Your task to perform on an android device: change your default location settings in chrome Image 0: 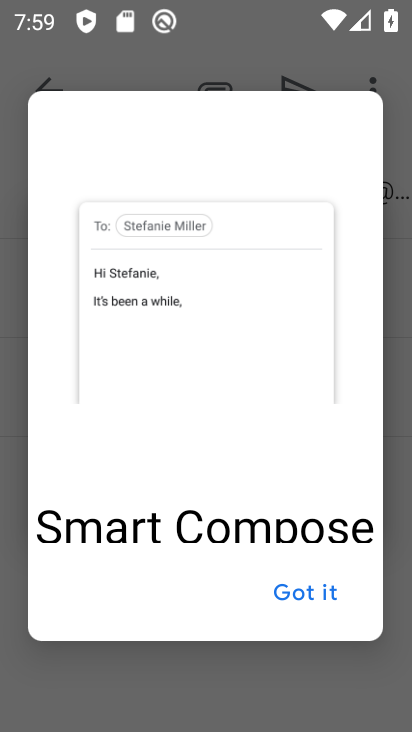
Step 0: press home button
Your task to perform on an android device: change your default location settings in chrome Image 1: 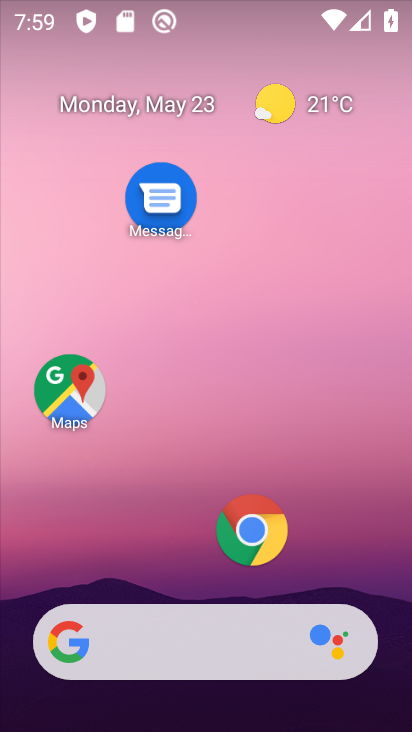
Step 1: click (250, 522)
Your task to perform on an android device: change your default location settings in chrome Image 2: 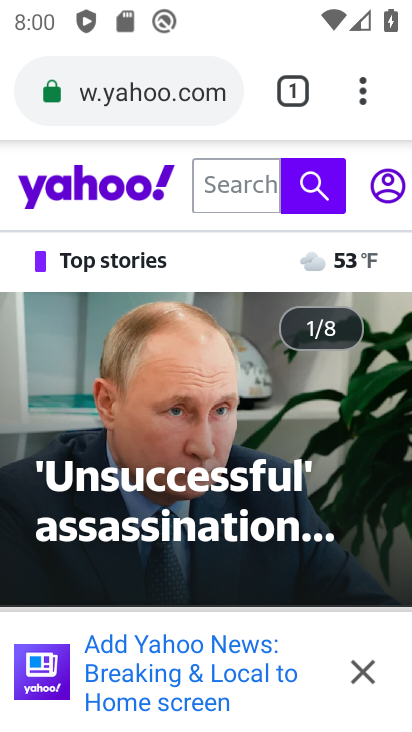
Step 2: click (368, 83)
Your task to perform on an android device: change your default location settings in chrome Image 3: 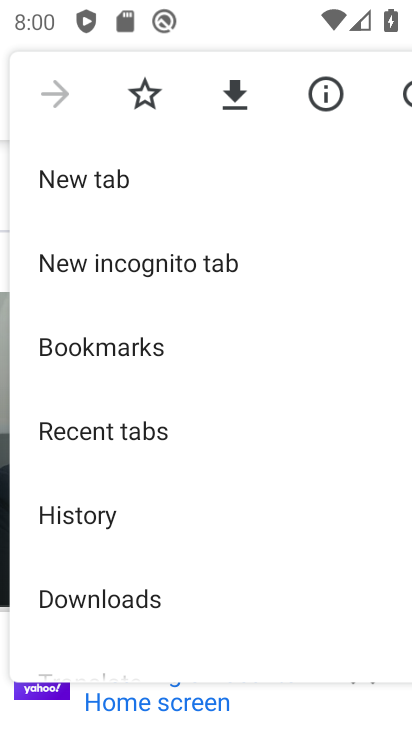
Step 3: drag from (157, 554) to (203, 255)
Your task to perform on an android device: change your default location settings in chrome Image 4: 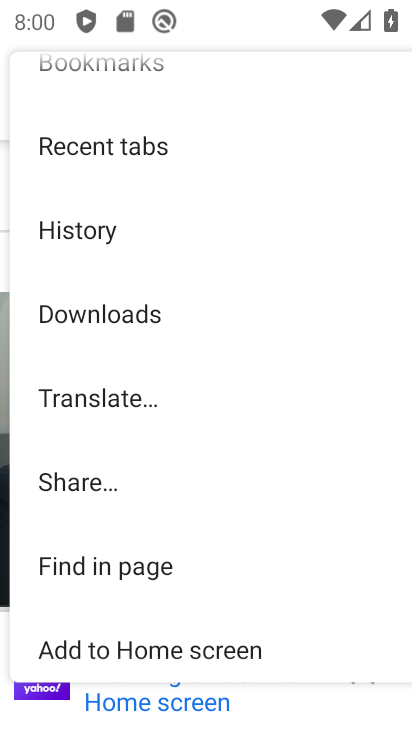
Step 4: drag from (134, 587) to (229, 214)
Your task to perform on an android device: change your default location settings in chrome Image 5: 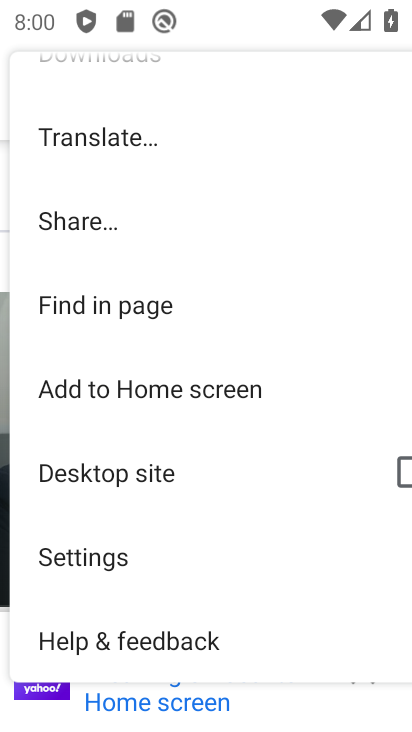
Step 5: drag from (177, 619) to (298, 155)
Your task to perform on an android device: change your default location settings in chrome Image 6: 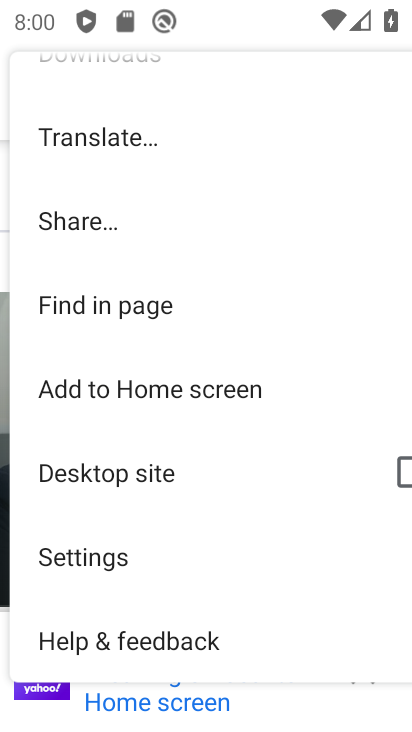
Step 6: click (72, 563)
Your task to perform on an android device: change your default location settings in chrome Image 7: 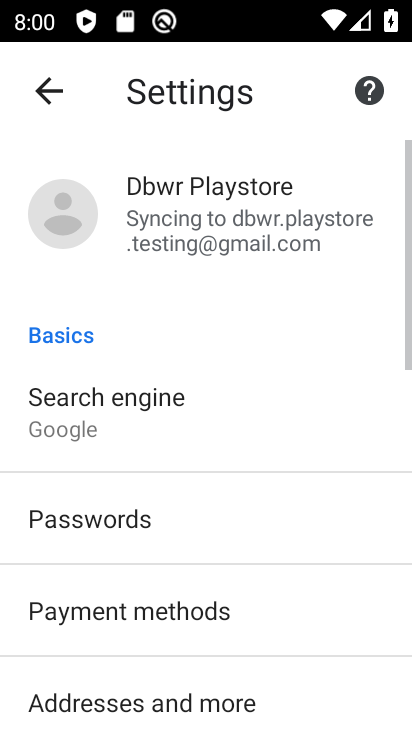
Step 7: drag from (72, 563) to (233, 93)
Your task to perform on an android device: change your default location settings in chrome Image 8: 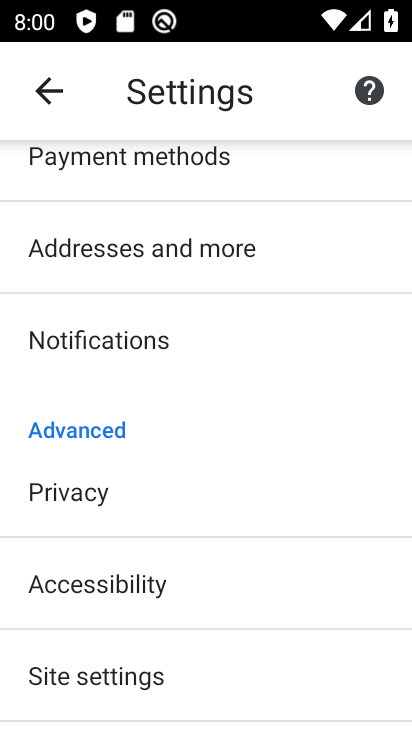
Step 8: drag from (192, 571) to (333, 168)
Your task to perform on an android device: change your default location settings in chrome Image 9: 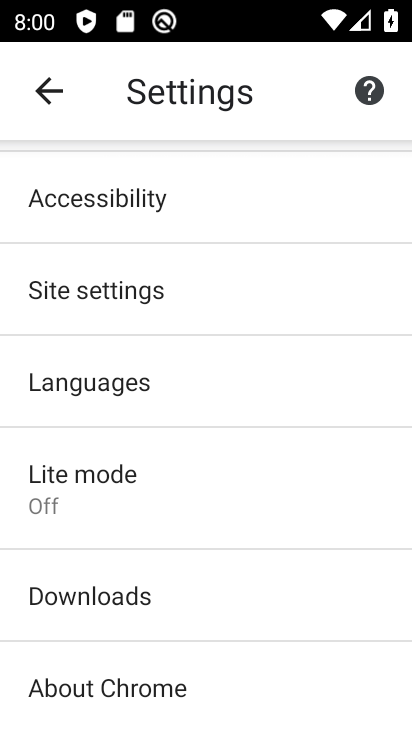
Step 9: click (199, 300)
Your task to perform on an android device: change your default location settings in chrome Image 10: 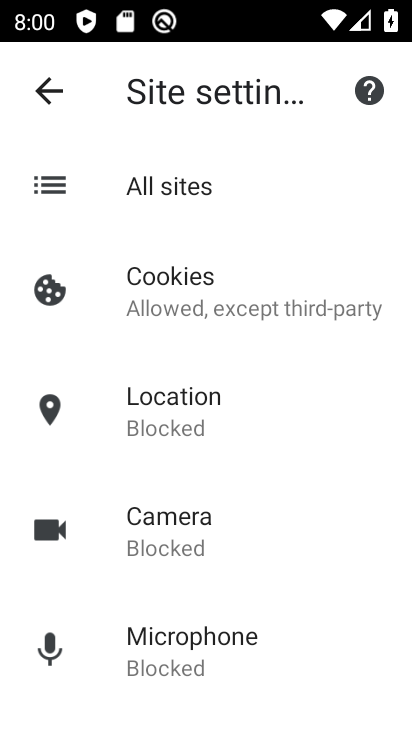
Step 10: click (184, 418)
Your task to perform on an android device: change your default location settings in chrome Image 11: 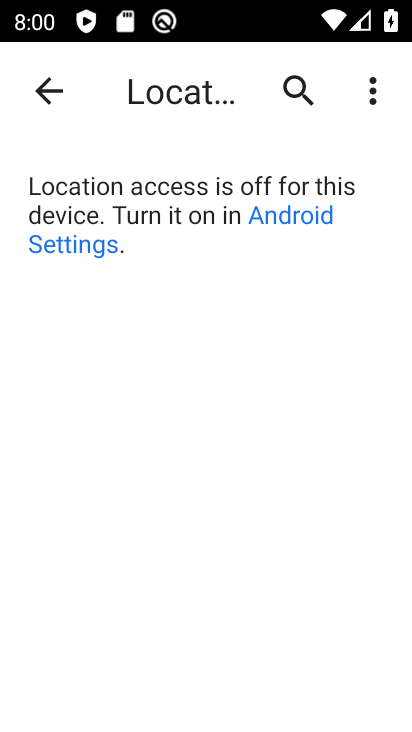
Step 11: task complete